Your task to perform on an android device: Open Chrome and go to settings Image 0: 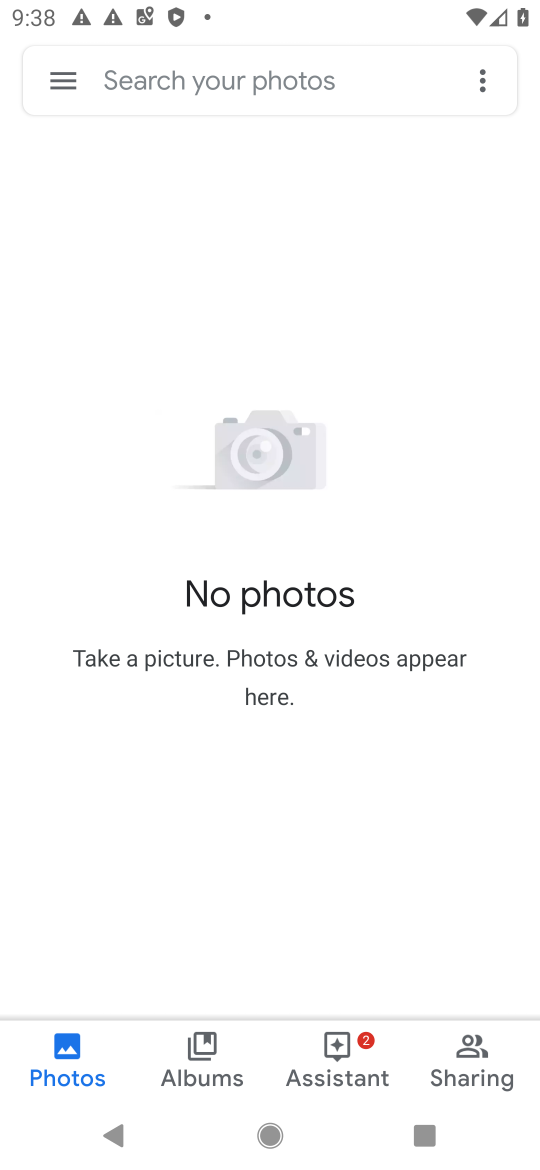
Step 0: press home button
Your task to perform on an android device: Open Chrome and go to settings Image 1: 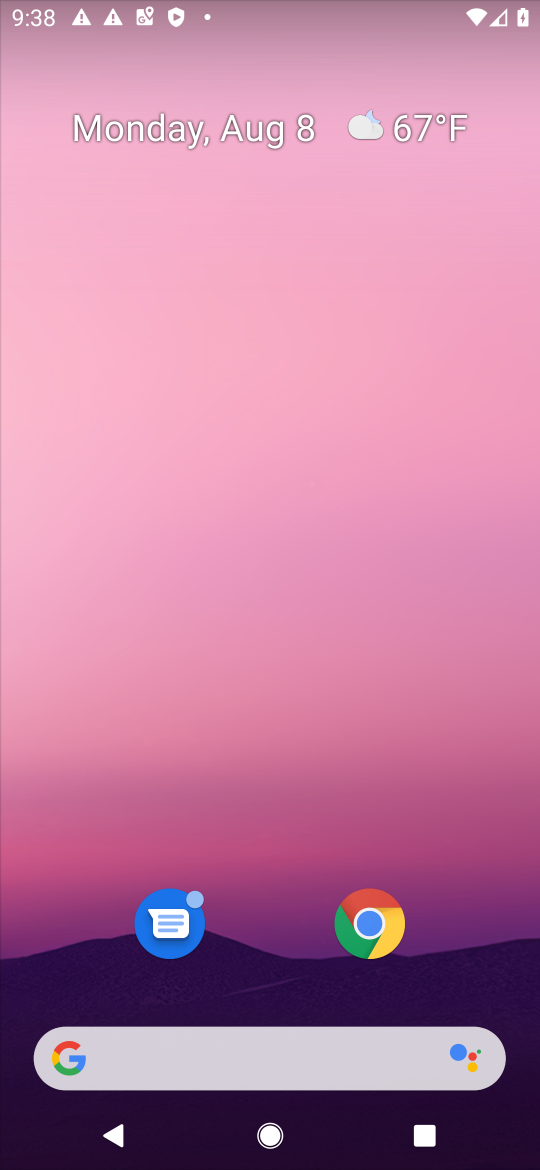
Step 1: click (378, 932)
Your task to perform on an android device: Open Chrome and go to settings Image 2: 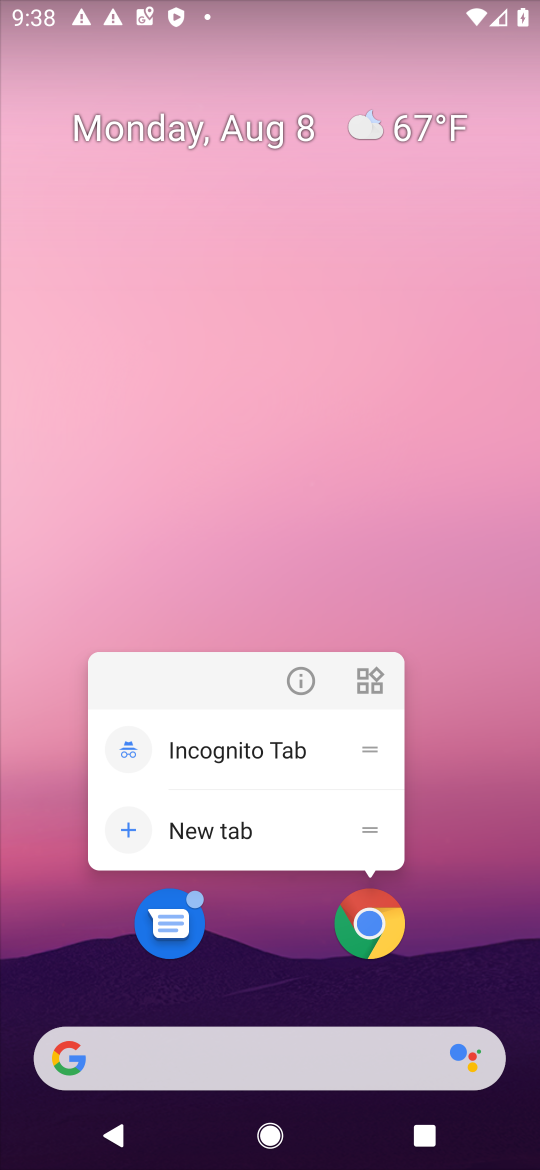
Step 2: click (378, 932)
Your task to perform on an android device: Open Chrome and go to settings Image 3: 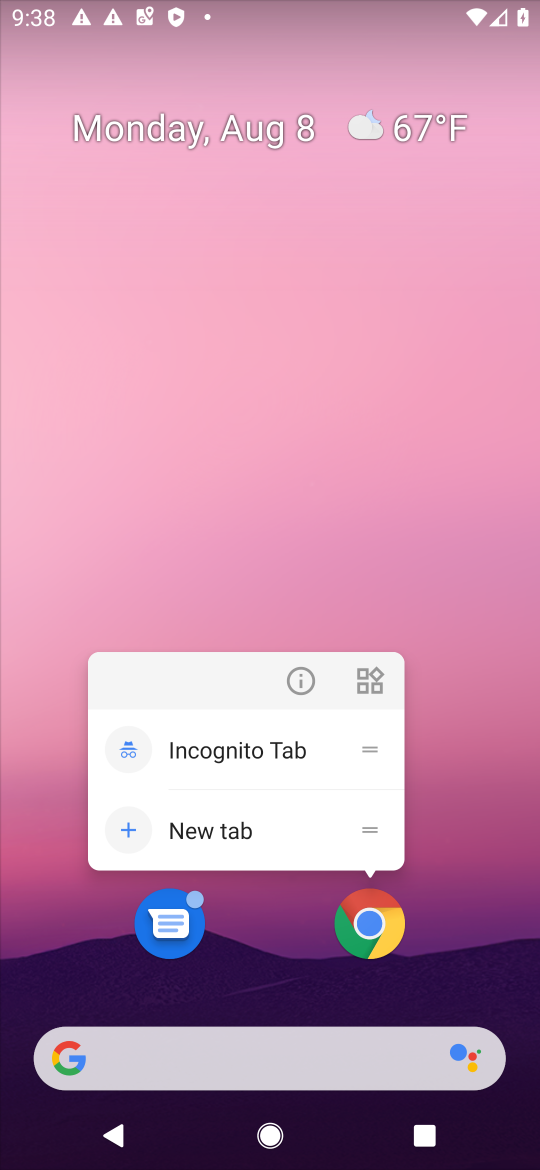
Step 3: click (378, 932)
Your task to perform on an android device: Open Chrome and go to settings Image 4: 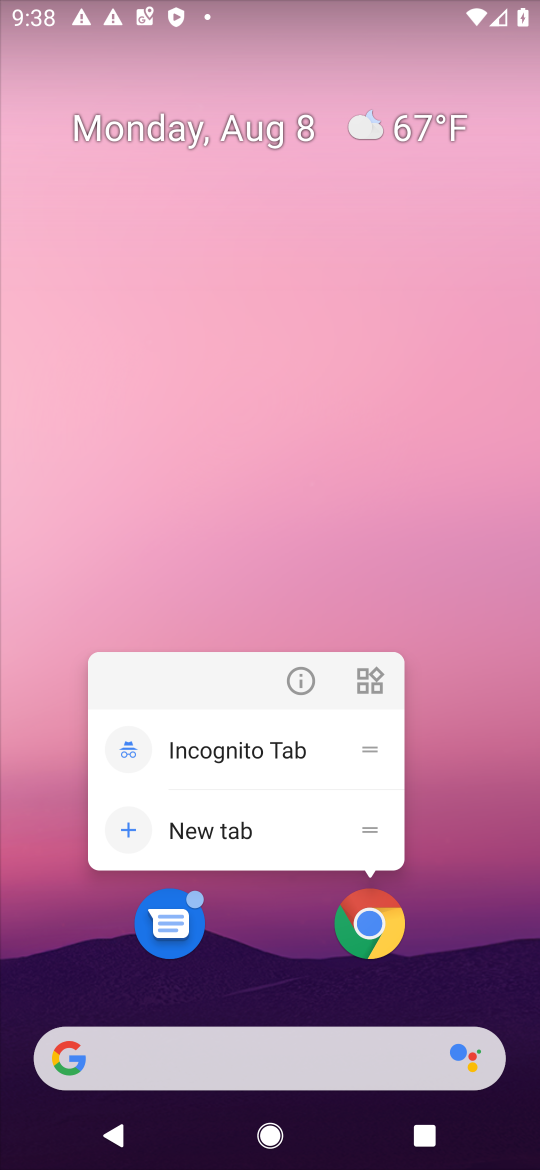
Step 4: task complete